Your task to perform on an android device: turn off notifications settings in the gmail app Image 0: 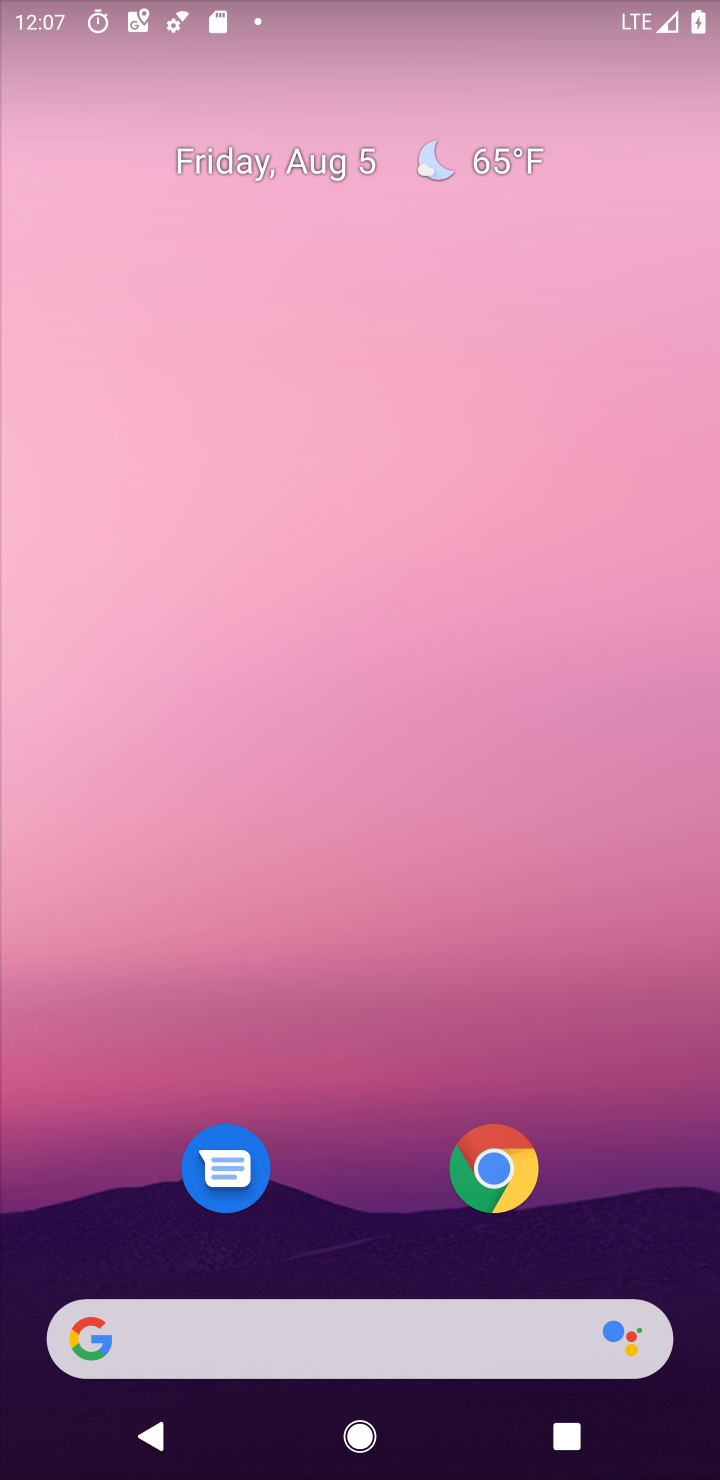
Step 0: drag from (367, 1119) to (426, 414)
Your task to perform on an android device: turn off notifications settings in the gmail app Image 1: 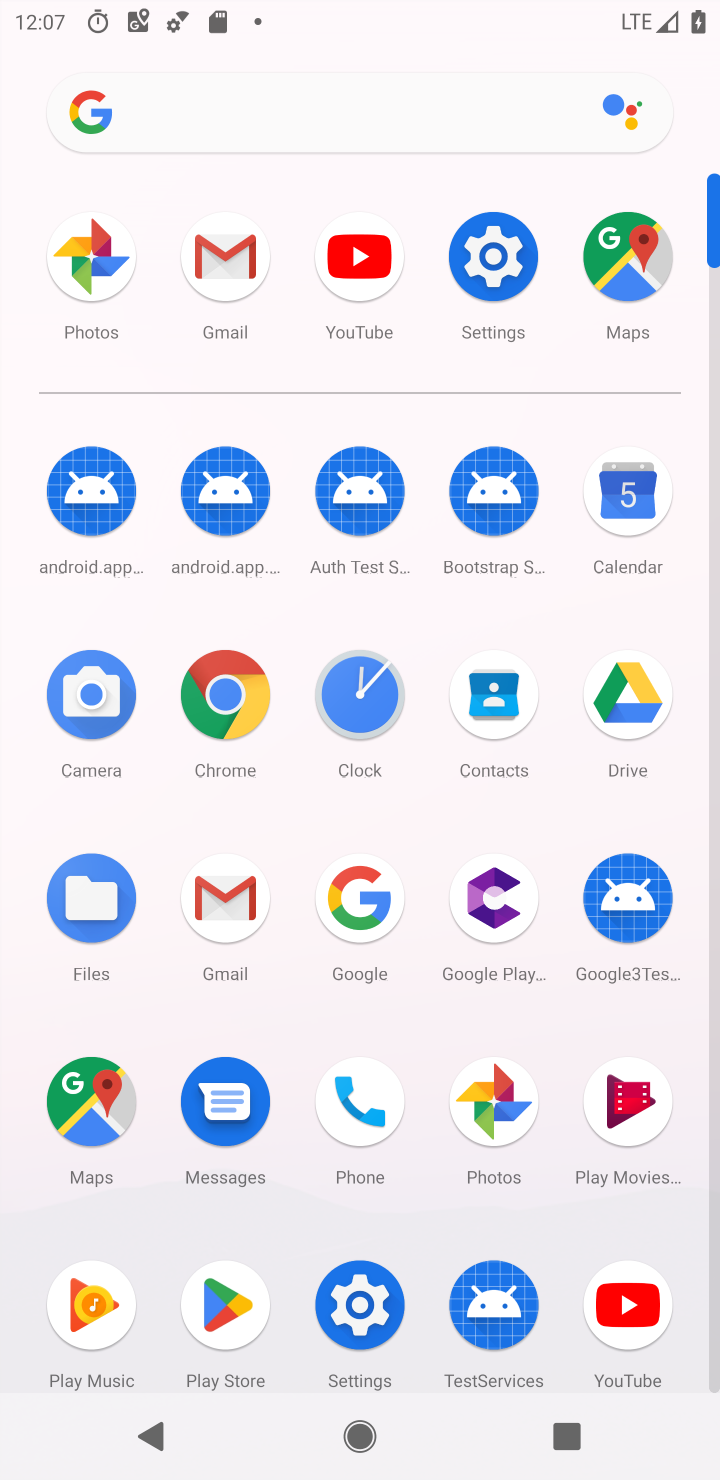
Step 1: click (203, 916)
Your task to perform on an android device: turn off notifications settings in the gmail app Image 2: 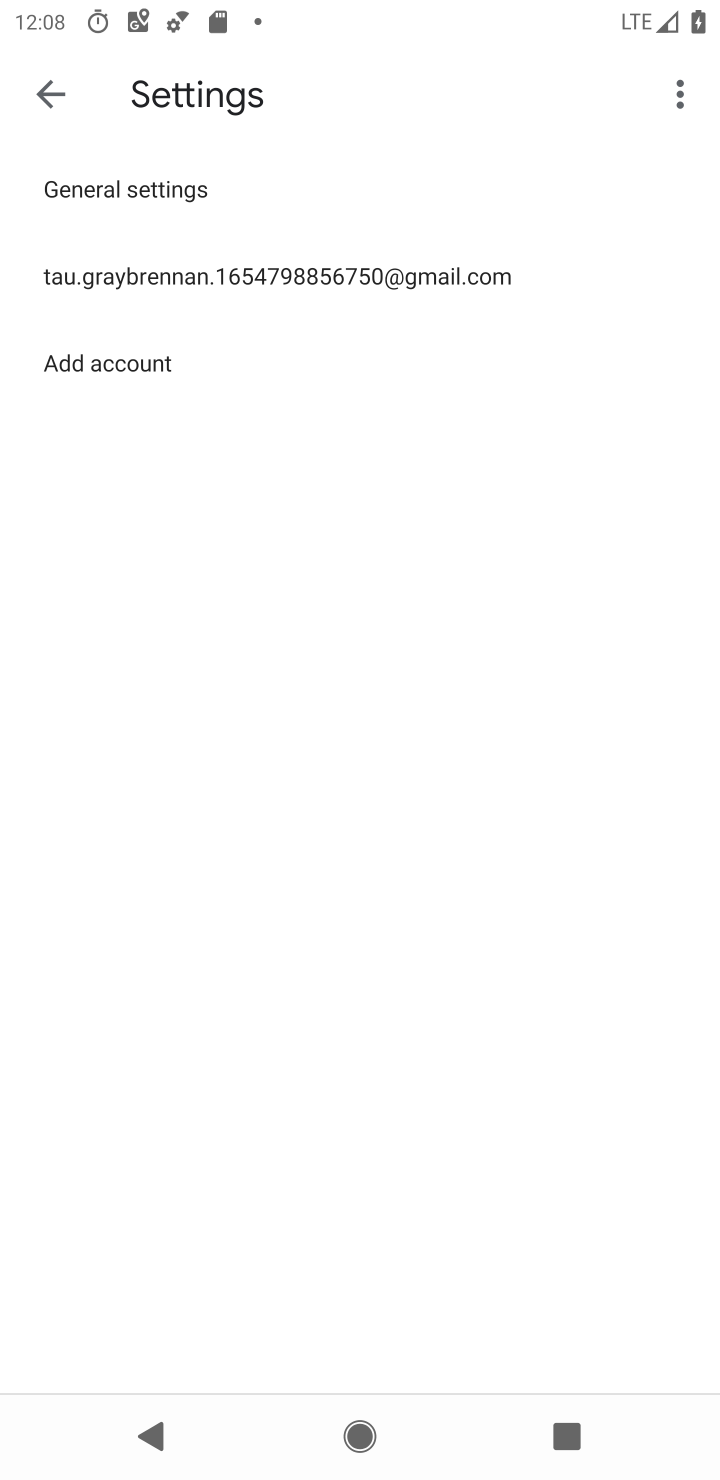
Step 2: click (128, 183)
Your task to perform on an android device: turn off notifications settings in the gmail app Image 3: 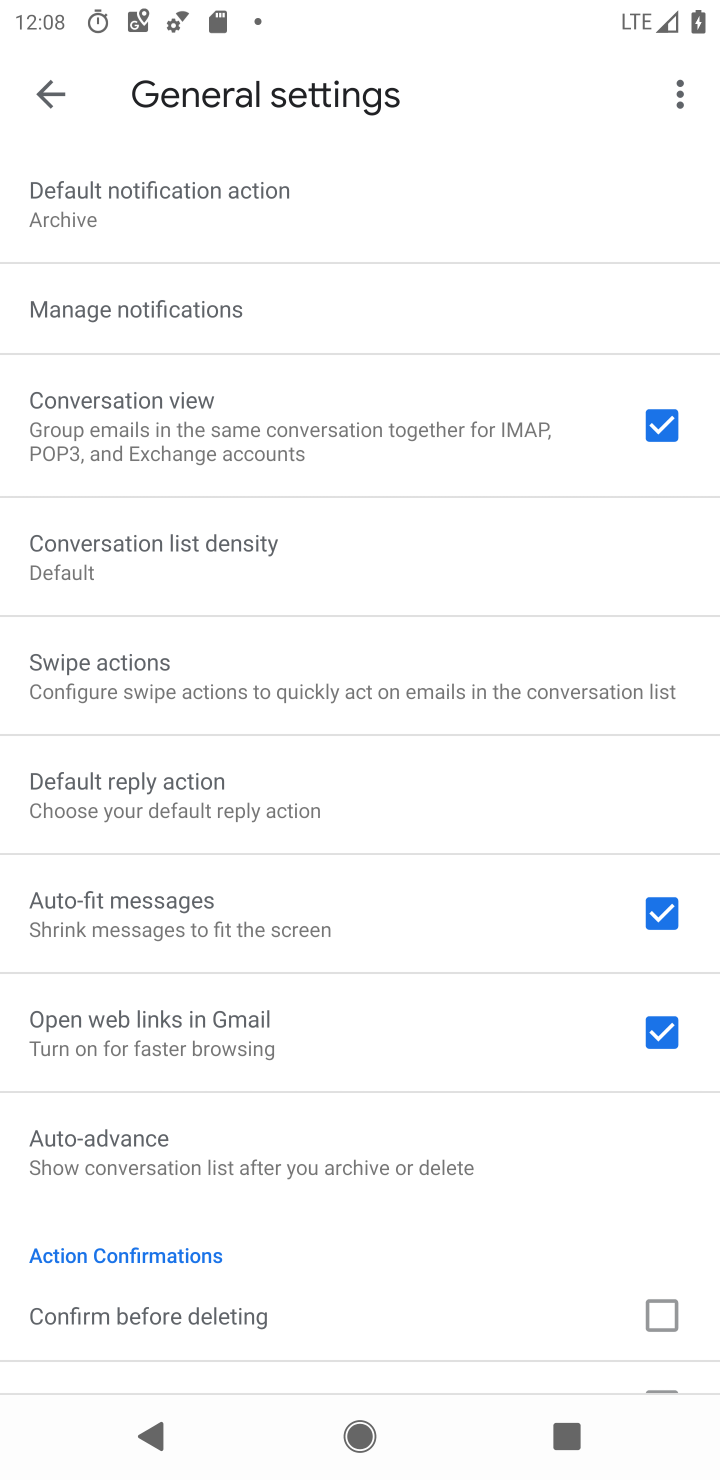
Step 3: click (180, 285)
Your task to perform on an android device: turn off notifications settings in the gmail app Image 4: 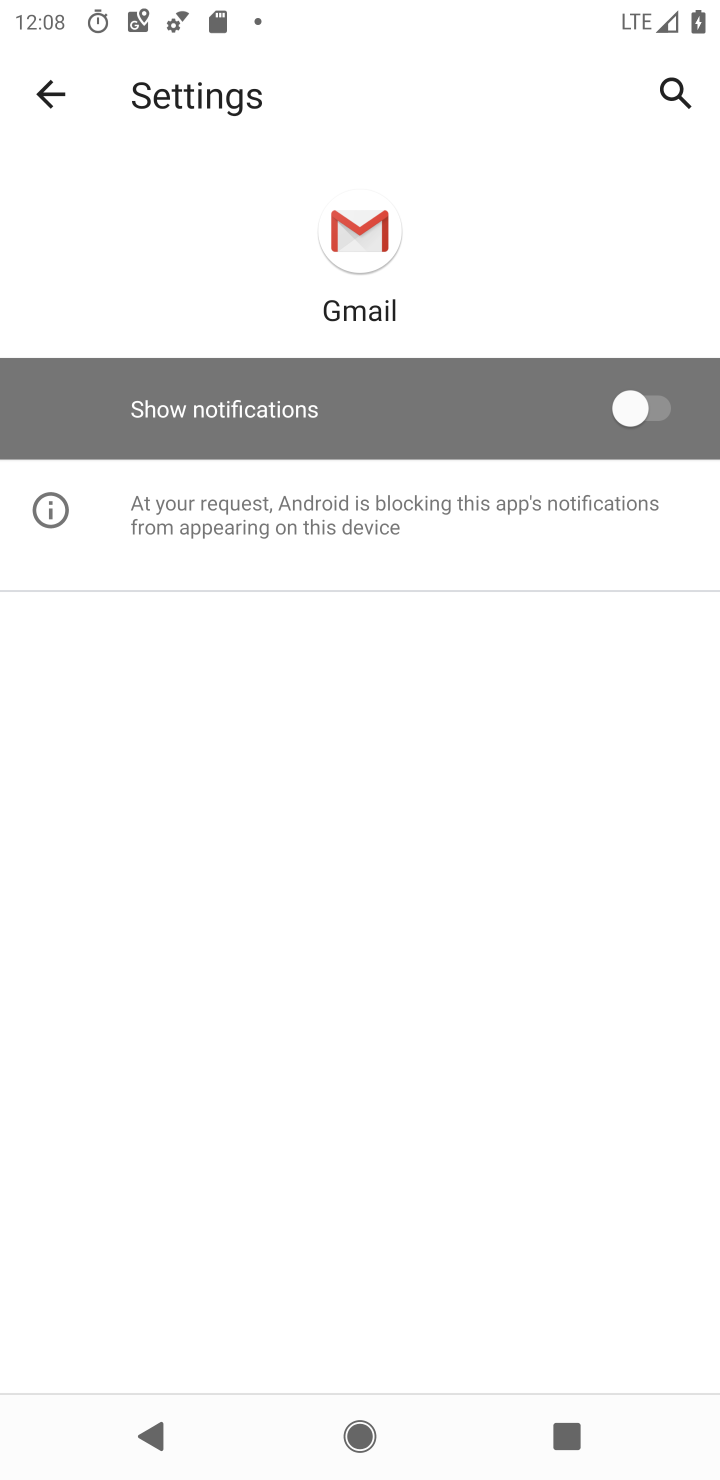
Step 4: task complete